Your task to perform on an android device: all mails in gmail Image 0: 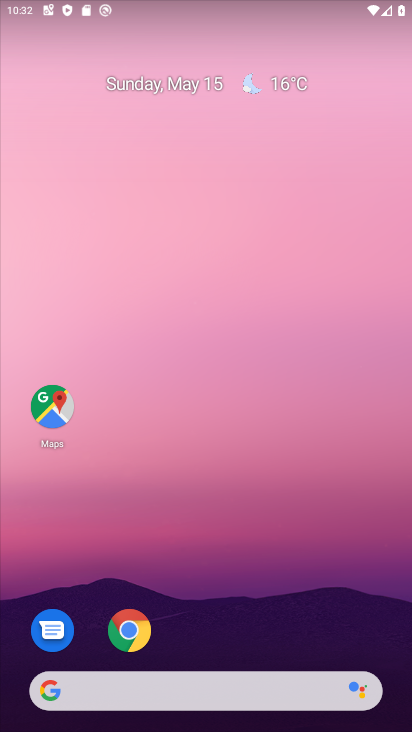
Step 0: drag from (227, 626) to (227, 132)
Your task to perform on an android device: all mails in gmail Image 1: 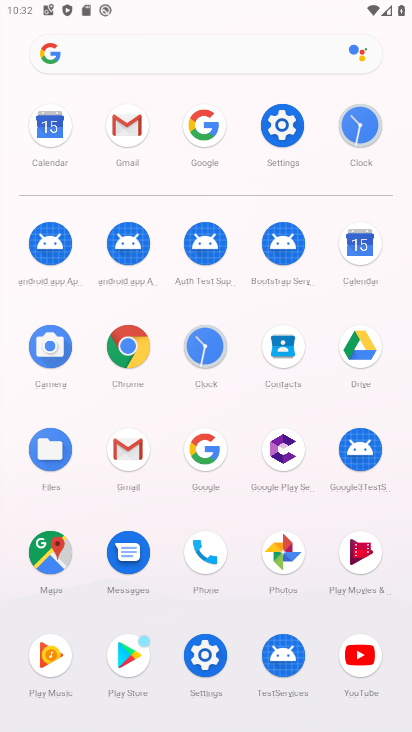
Step 1: click (120, 150)
Your task to perform on an android device: all mails in gmail Image 2: 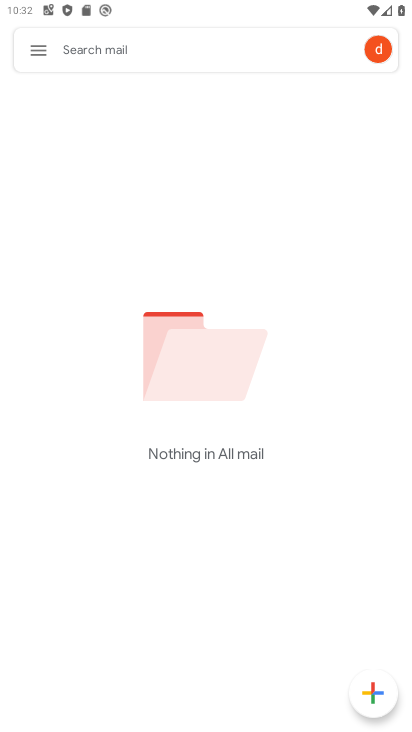
Step 2: click (39, 58)
Your task to perform on an android device: all mails in gmail Image 3: 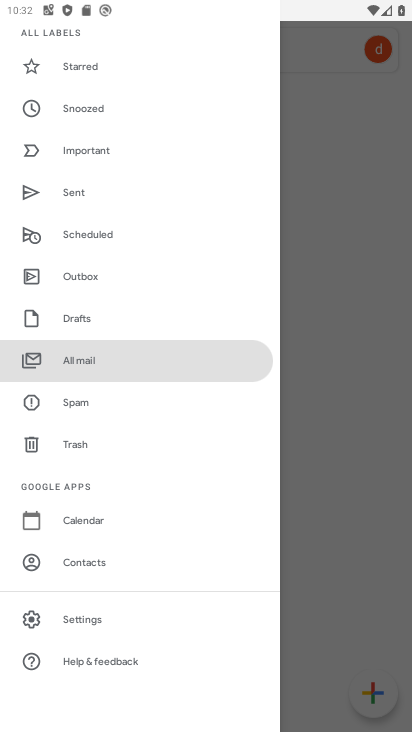
Step 3: click (93, 354)
Your task to perform on an android device: all mails in gmail Image 4: 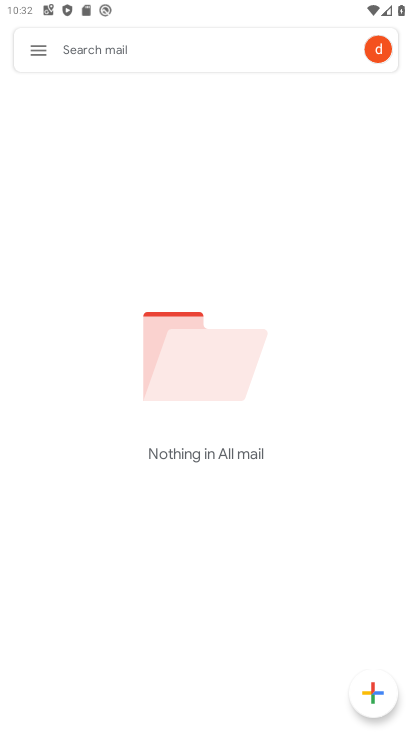
Step 4: task complete